Your task to perform on an android device: Go to Android settings Image 0: 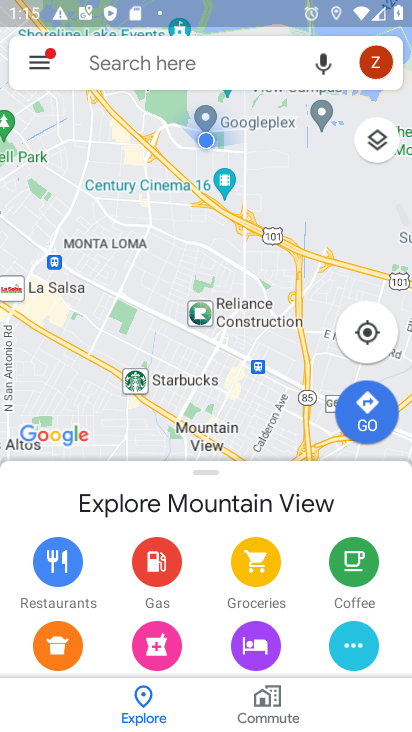
Step 0: press home button
Your task to perform on an android device: Go to Android settings Image 1: 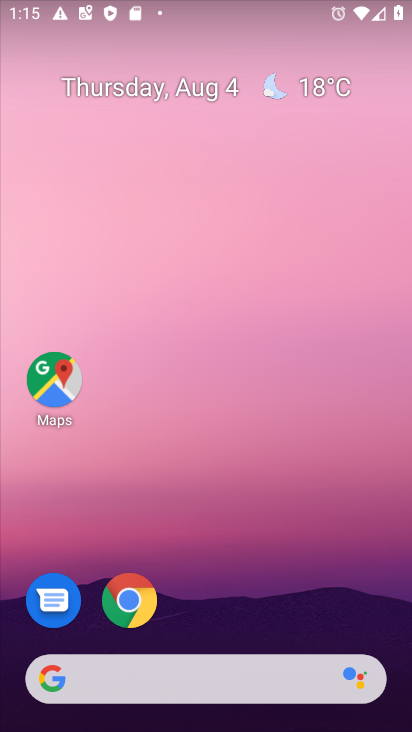
Step 1: drag from (155, 613) to (304, 118)
Your task to perform on an android device: Go to Android settings Image 2: 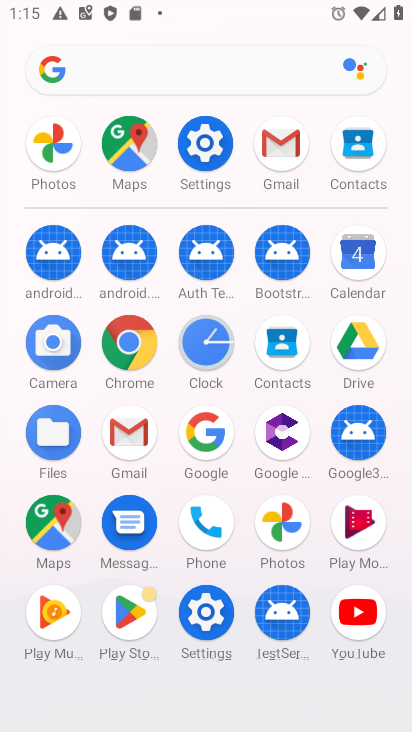
Step 2: click (214, 153)
Your task to perform on an android device: Go to Android settings Image 3: 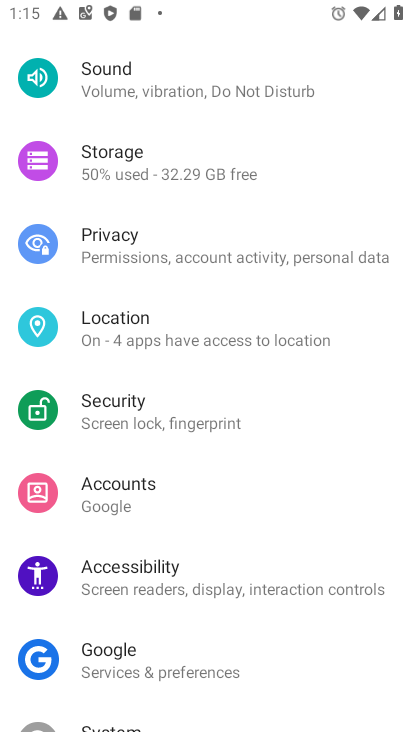
Step 3: task complete